Your task to perform on an android device: Set the phone to "Do not disturb". Image 0: 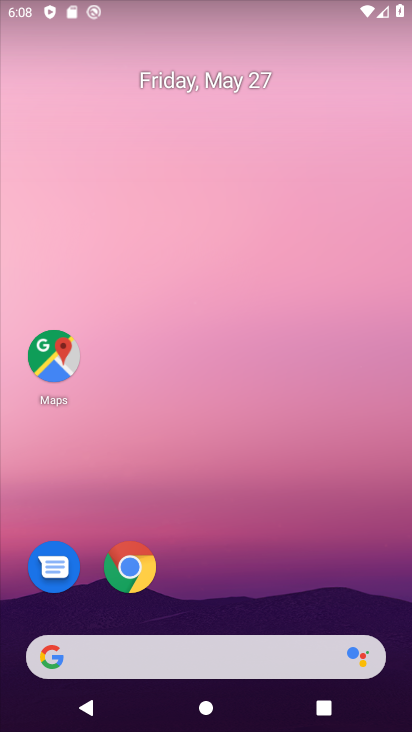
Step 0: drag from (231, 603) to (216, 8)
Your task to perform on an android device: Set the phone to "Do not disturb". Image 1: 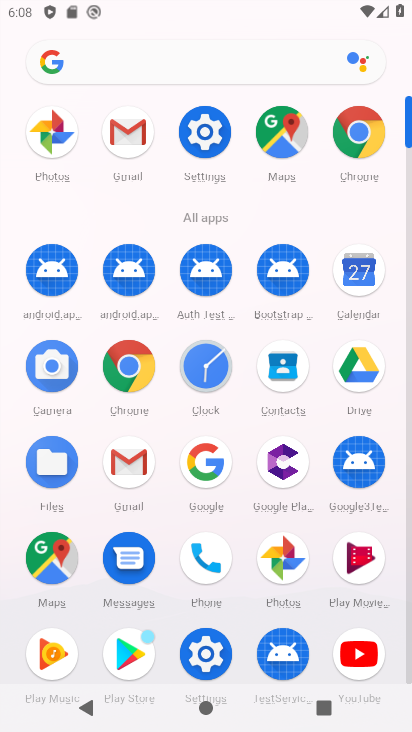
Step 1: click (211, 148)
Your task to perform on an android device: Set the phone to "Do not disturb". Image 2: 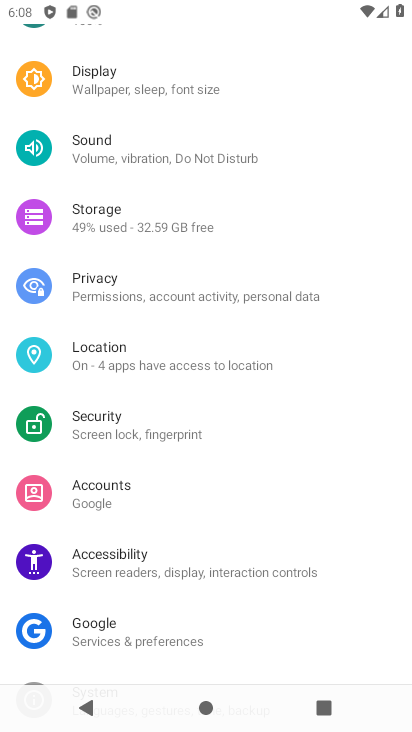
Step 2: click (93, 165)
Your task to perform on an android device: Set the phone to "Do not disturb". Image 3: 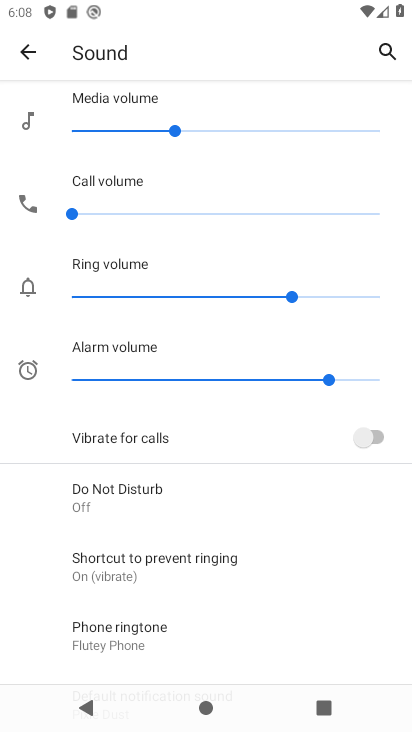
Step 3: click (126, 509)
Your task to perform on an android device: Set the phone to "Do not disturb". Image 4: 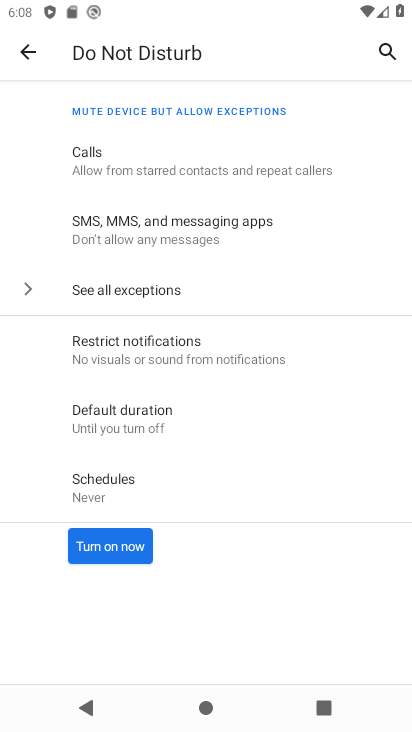
Step 4: click (123, 555)
Your task to perform on an android device: Set the phone to "Do not disturb". Image 5: 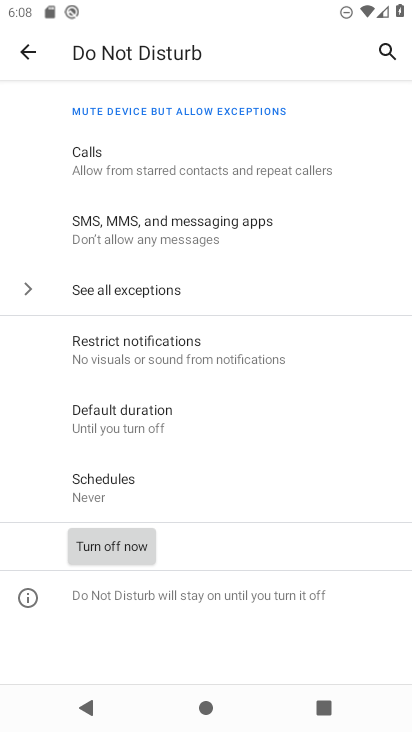
Step 5: task complete